Your task to perform on an android device: toggle improve location accuracy Image 0: 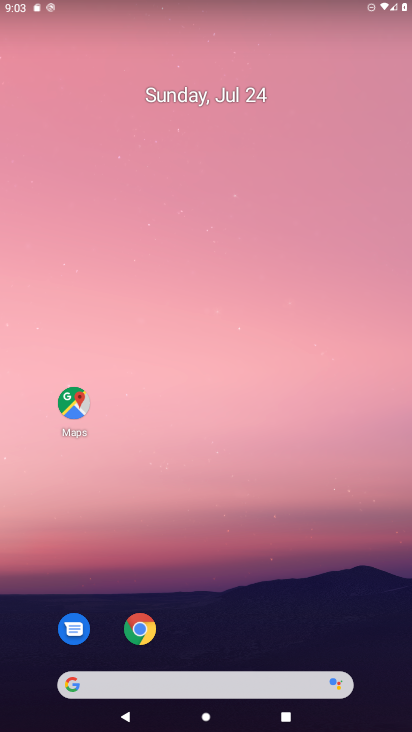
Step 0: drag from (366, 646) to (52, 9)
Your task to perform on an android device: toggle improve location accuracy Image 1: 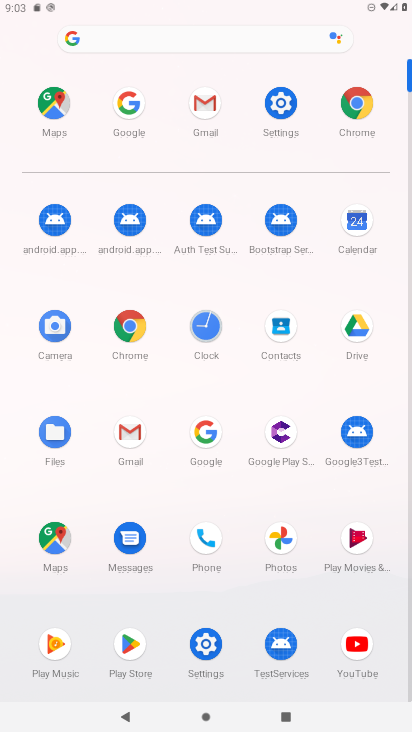
Step 1: click (196, 647)
Your task to perform on an android device: toggle improve location accuracy Image 2: 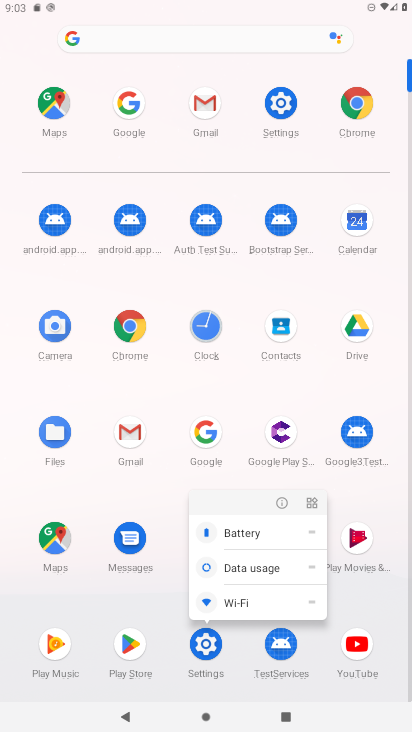
Step 2: click (196, 647)
Your task to perform on an android device: toggle improve location accuracy Image 3: 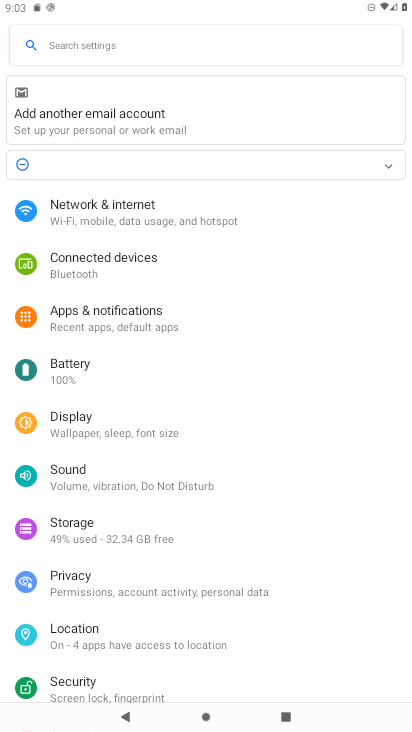
Step 3: click (86, 642)
Your task to perform on an android device: toggle improve location accuracy Image 4: 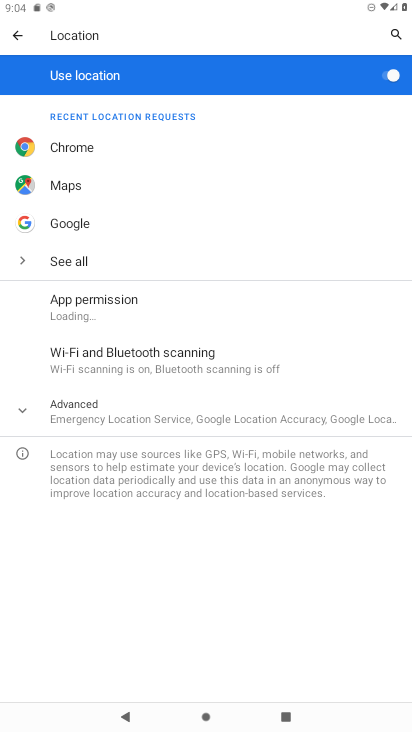
Step 4: click (56, 407)
Your task to perform on an android device: toggle improve location accuracy Image 5: 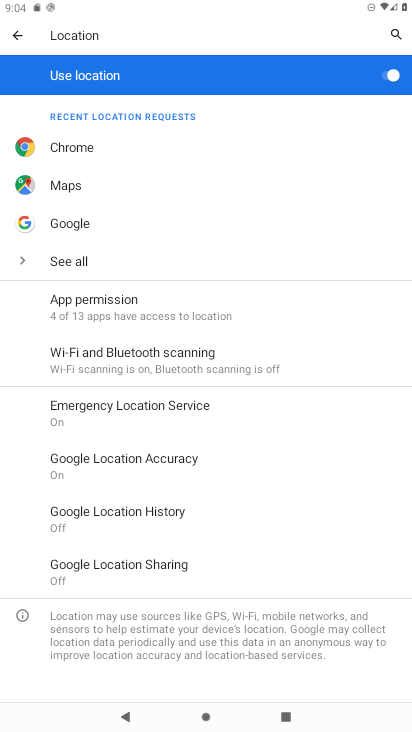
Step 5: click (144, 456)
Your task to perform on an android device: toggle improve location accuracy Image 6: 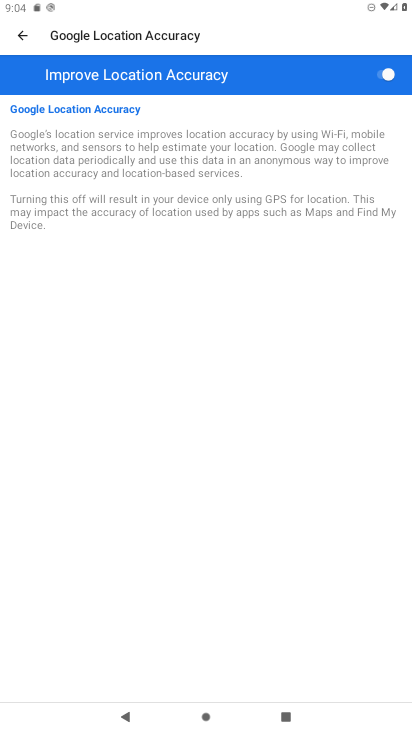
Step 6: click (350, 71)
Your task to perform on an android device: toggle improve location accuracy Image 7: 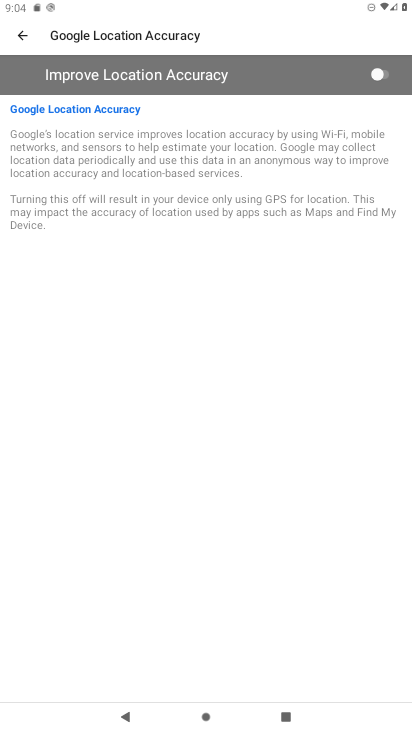
Step 7: task complete